Your task to perform on an android device: Go to battery settings Image 0: 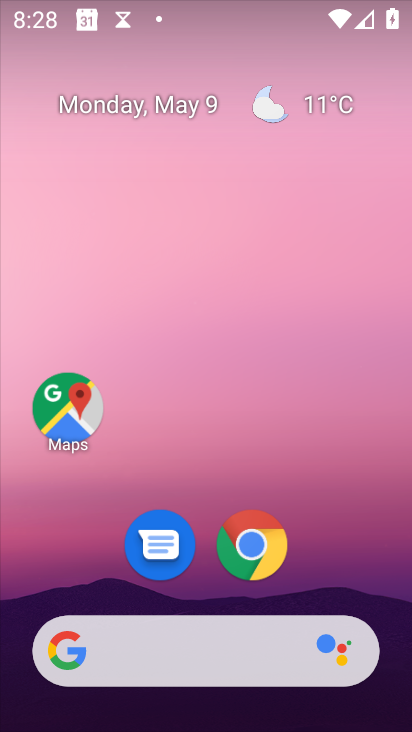
Step 0: drag from (221, 719) to (232, 150)
Your task to perform on an android device: Go to battery settings Image 1: 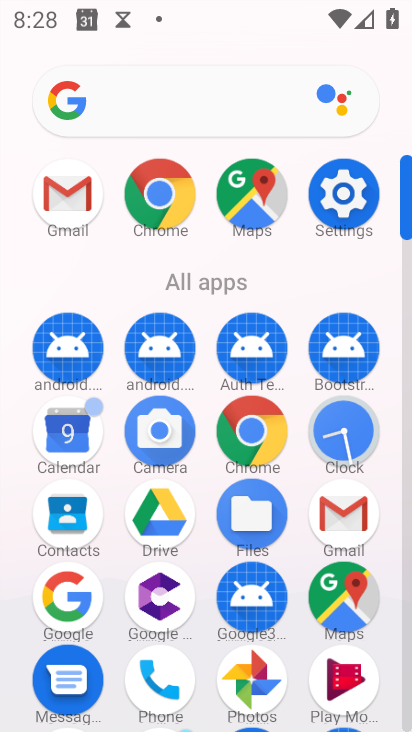
Step 1: click (347, 186)
Your task to perform on an android device: Go to battery settings Image 2: 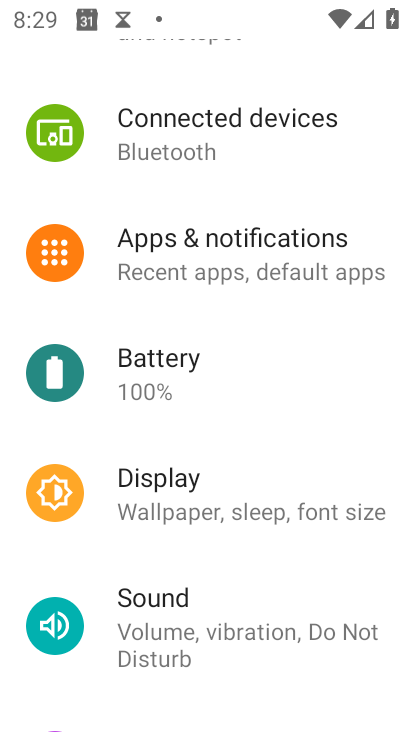
Step 2: click (137, 365)
Your task to perform on an android device: Go to battery settings Image 3: 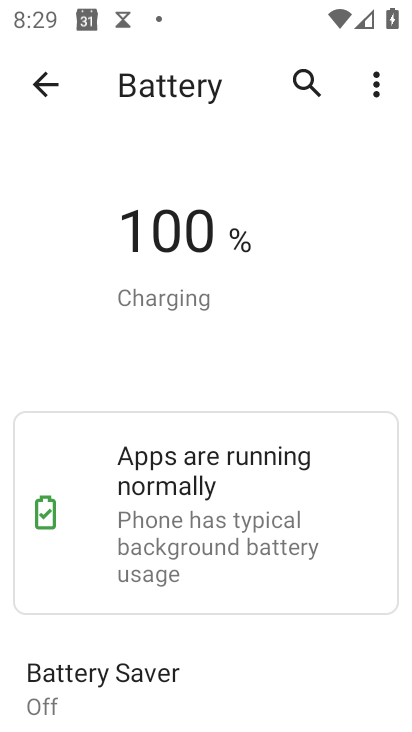
Step 3: task complete